Your task to perform on an android device: Open wifi settings Image 0: 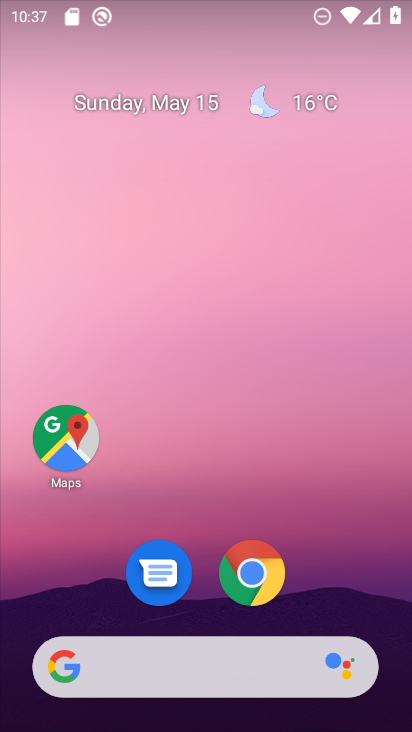
Step 0: press home button
Your task to perform on an android device: Open wifi settings Image 1: 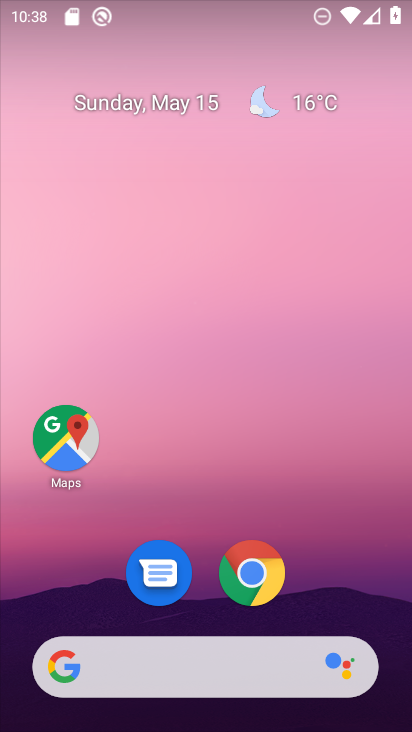
Step 1: drag from (145, 8) to (0, 730)
Your task to perform on an android device: Open wifi settings Image 2: 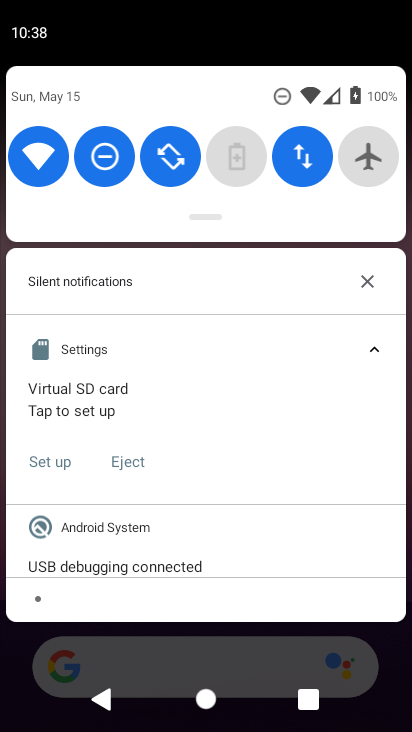
Step 2: click (27, 166)
Your task to perform on an android device: Open wifi settings Image 3: 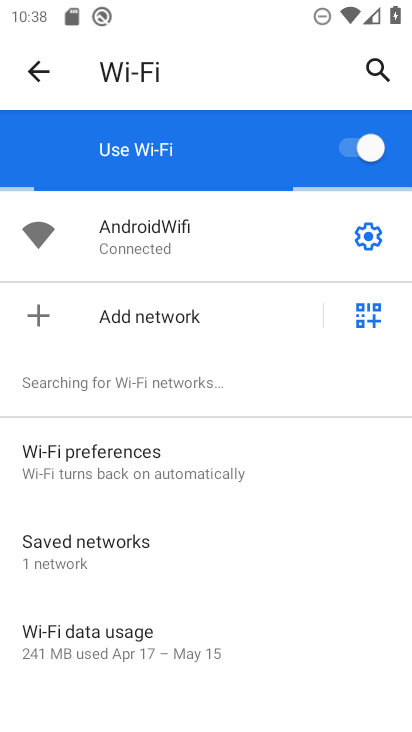
Step 3: task complete